Your task to perform on an android device: Is it going to rain tomorrow? Image 0: 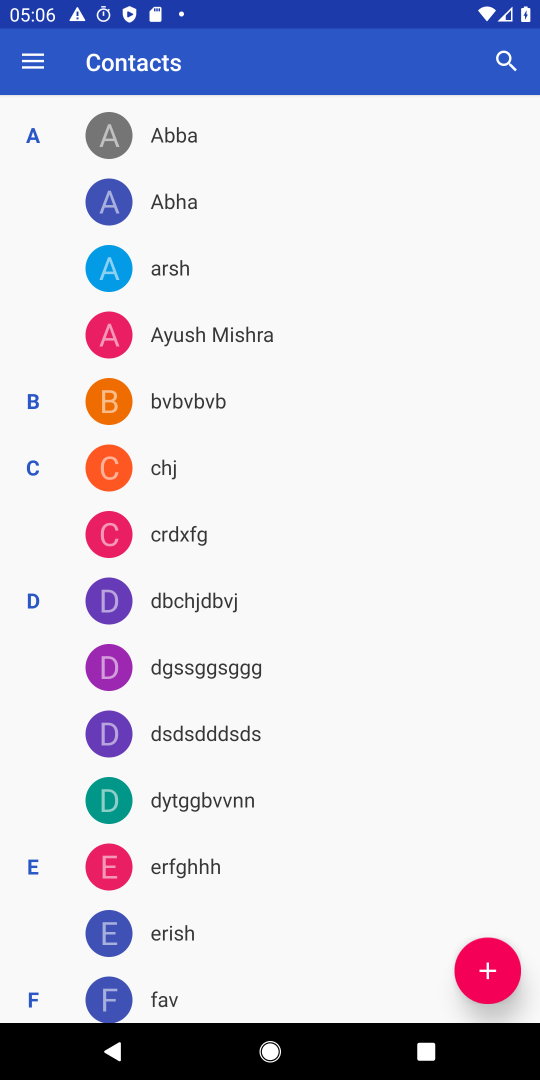
Step 0: press home button
Your task to perform on an android device: Is it going to rain tomorrow? Image 1: 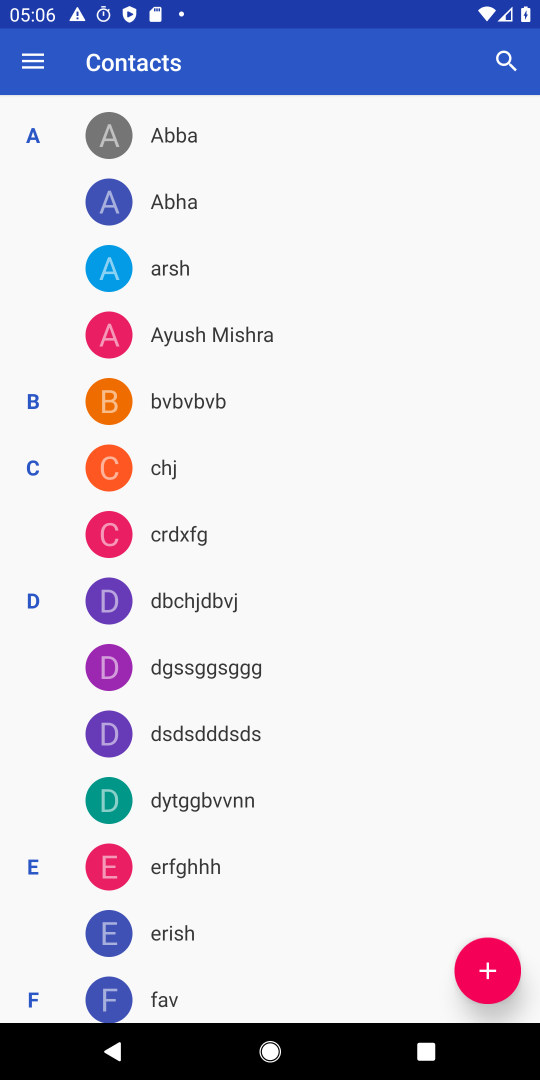
Step 1: press home button
Your task to perform on an android device: Is it going to rain tomorrow? Image 2: 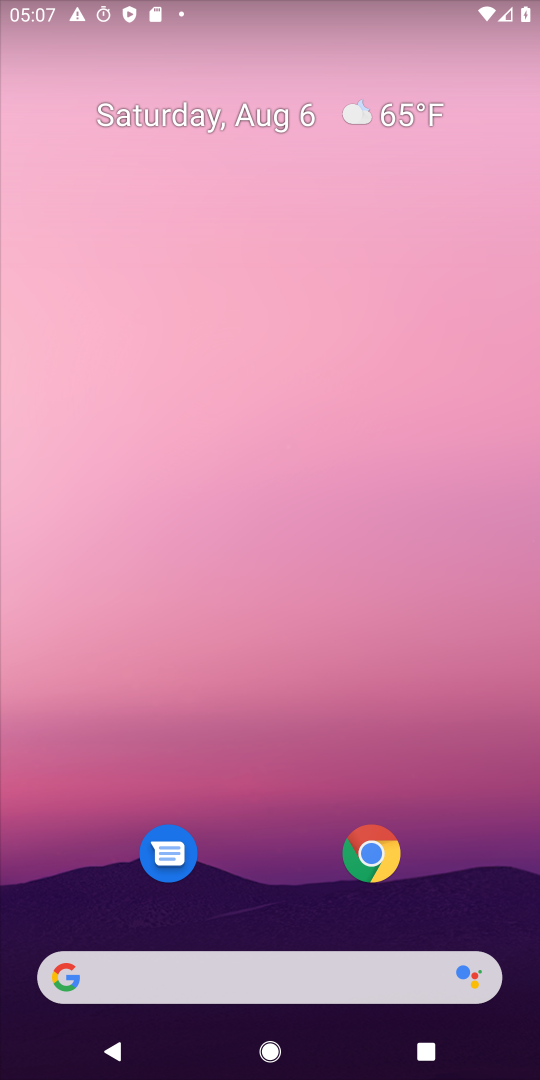
Step 2: drag from (243, 880) to (211, 182)
Your task to perform on an android device: Is it going to rain tomorrow? Image 3: 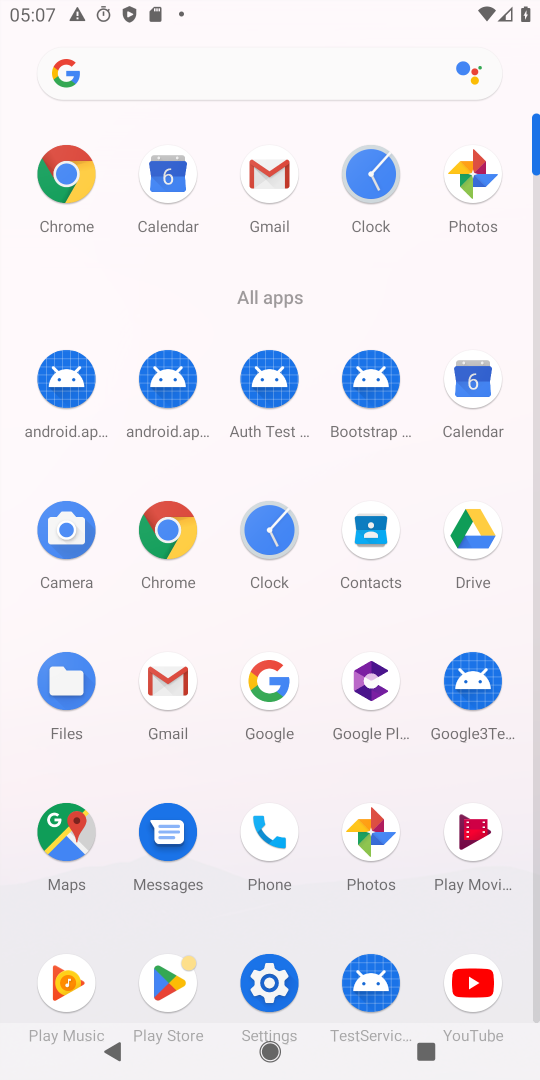
Step 3: drag from (219, 876) to (222, 324)
Your task to perform on an android device: Is it going to rain tomorrow? Image 4: 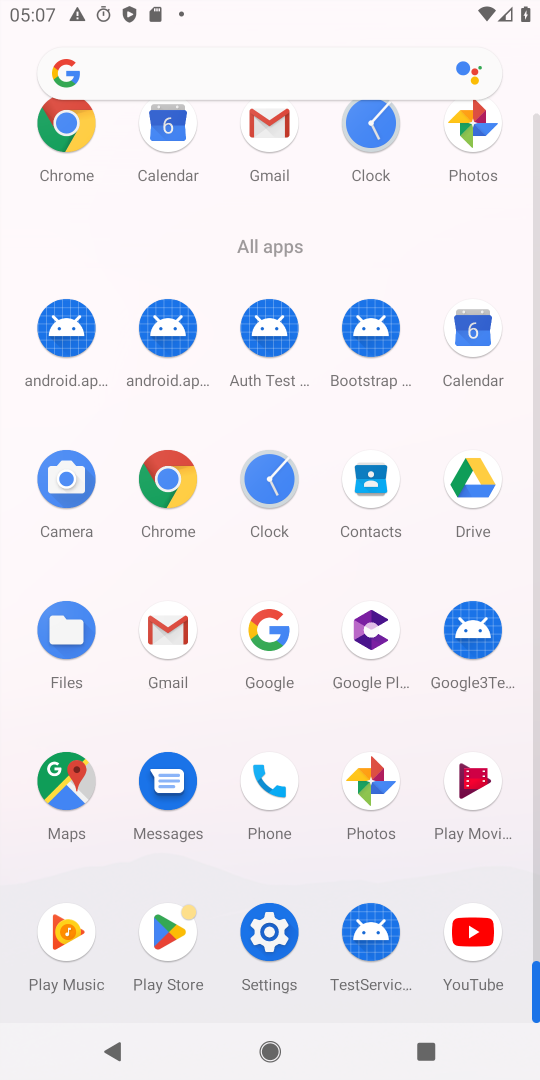
Step 4: click (173, 477)
Your task to perform on an android device: Is it going to rain tomorrow? Image 5: 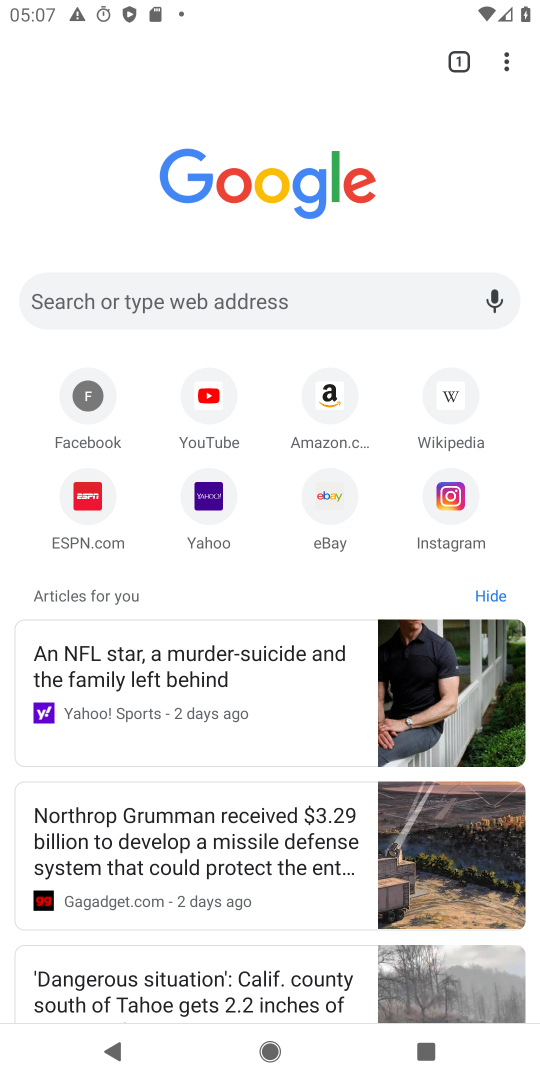
Step 5: click (377, 290)
Your task to perform on an android device: Is it going to rain tomorrow? Image 6: 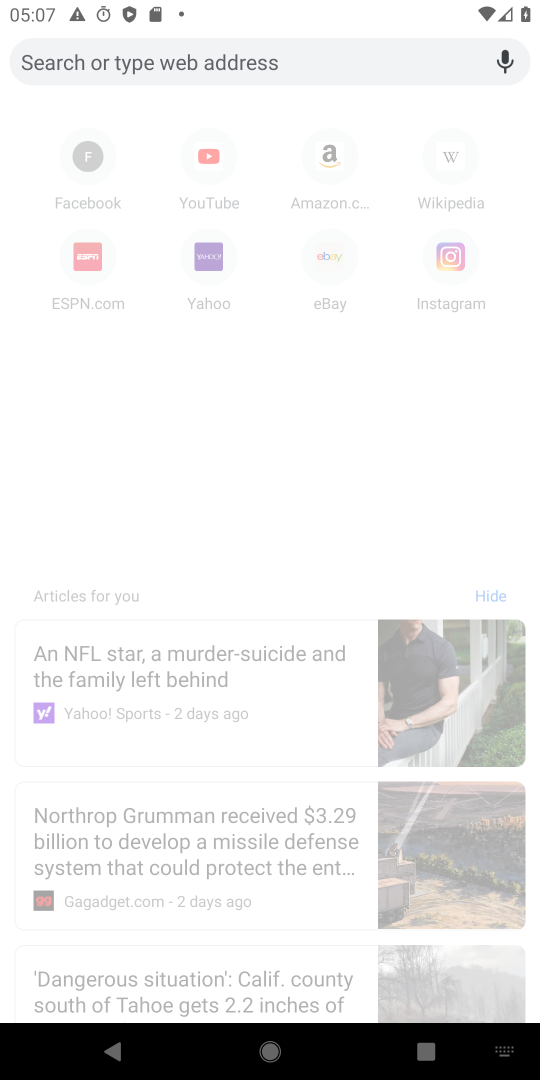
Step 6: type "weather"
Your task to perform on an android device: Is it going to rain tomorrow? Image 7: 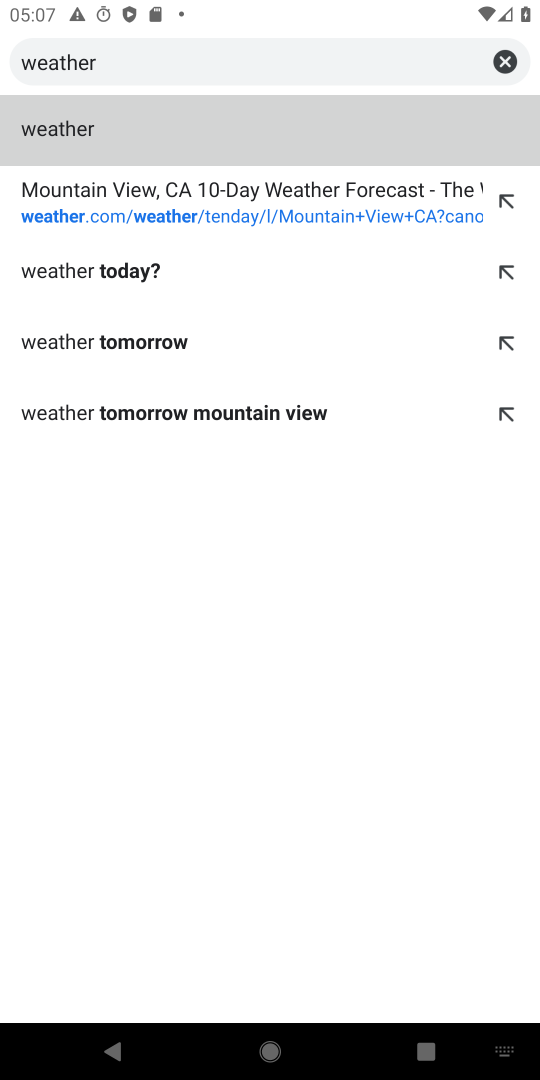
Step 7: click (50, 117)
Your task to perform on an android device: Is it going to rain tomorrow? Image 8: 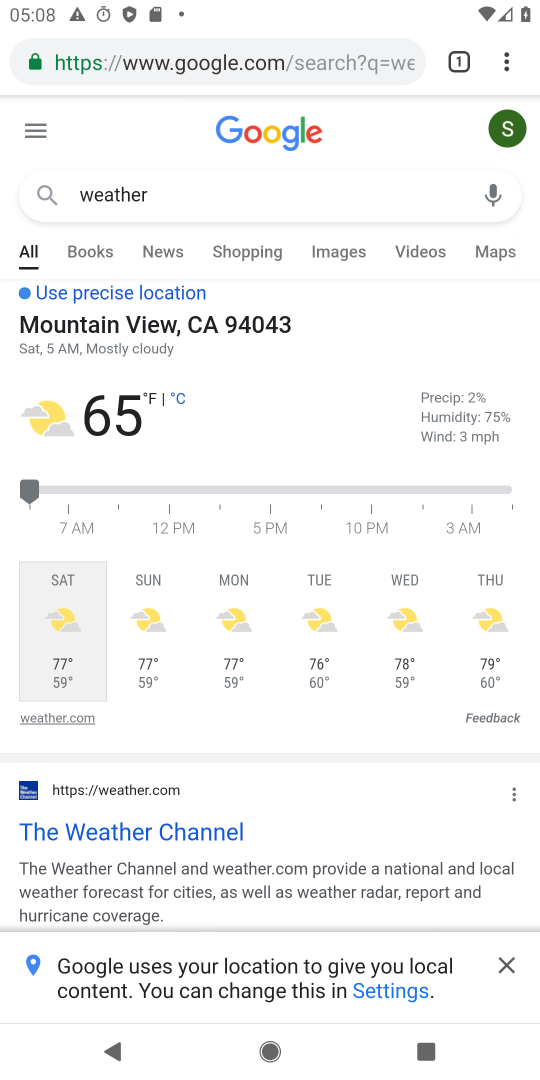
Step 8: click (153, 621)
Your task to perform on an android device: Is it going to rain tomorrow? Image 9: 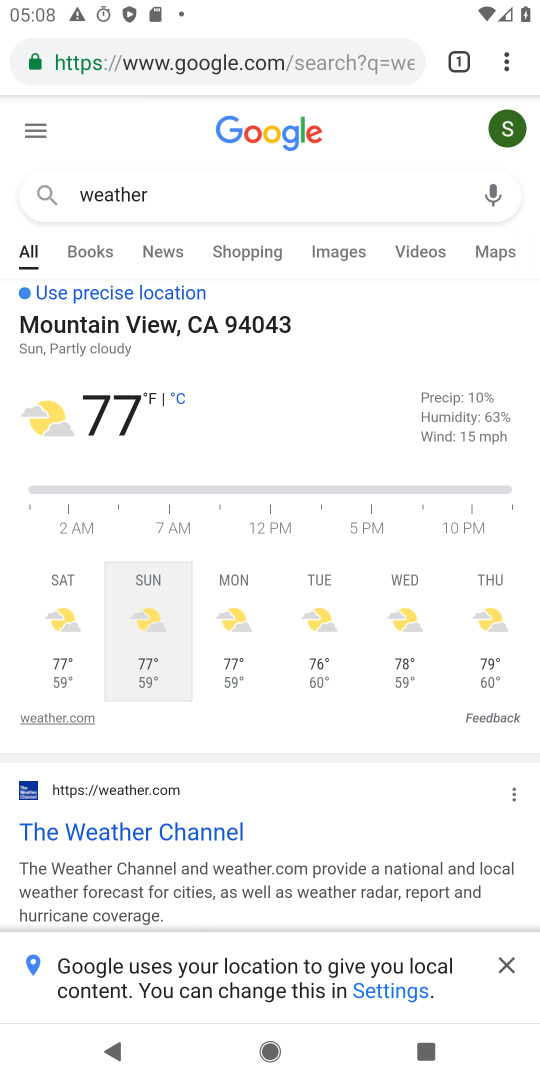
Step 9: task complete